Your task to perform on an android device: When is my next appointment? Image 0: 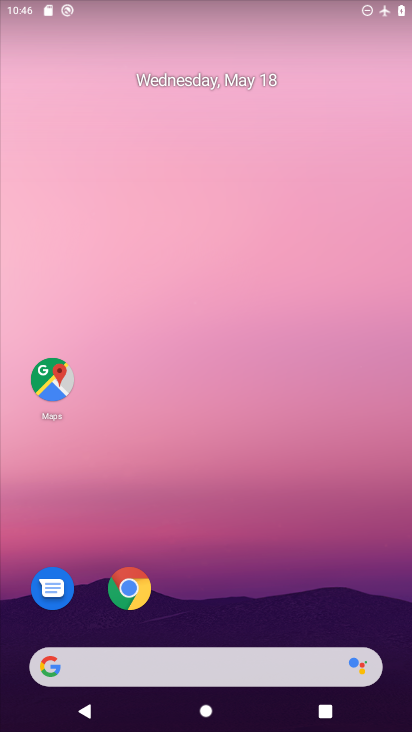
Step 0: drag from (237, 634) to (207, 7)
Your task to perform on an android device: When is my next appointment? Image 1: 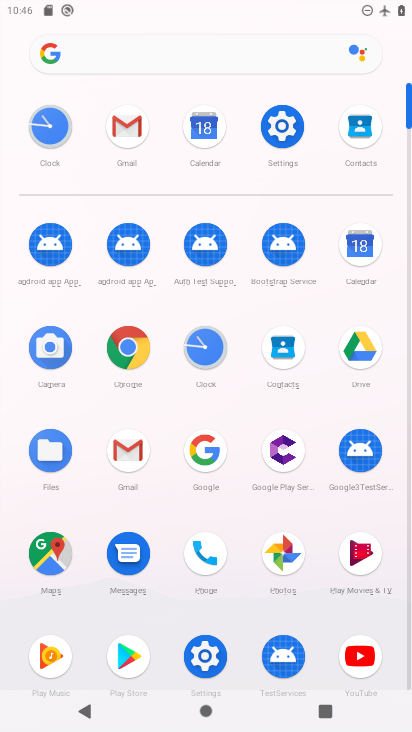
Step 1: click (203, 126)
Your task to perform on an android device: When is my next appointment? Image 2: 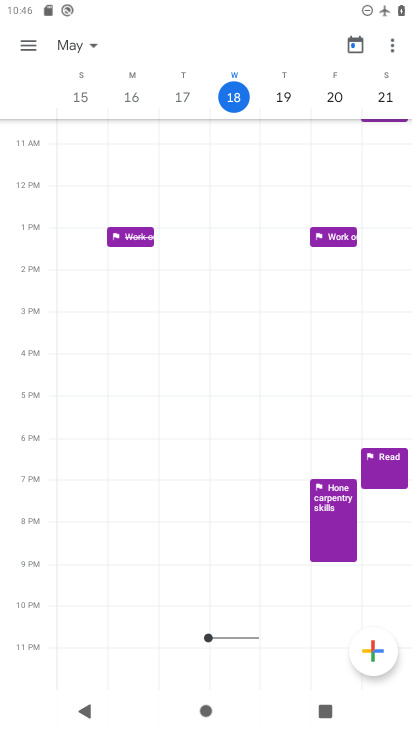
Step 2: click (24, 45)
Your task to perform on an android device: When is my next appointment? Image 3: 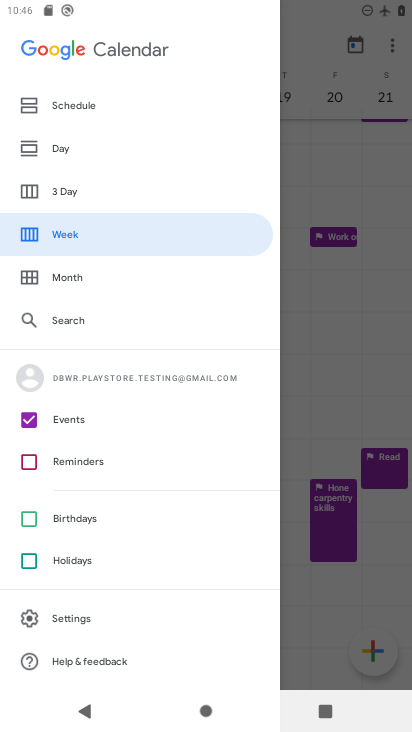
Step 3: click (56, 105)
Your task to perform on an android device: When is my next appointment? Image 4: 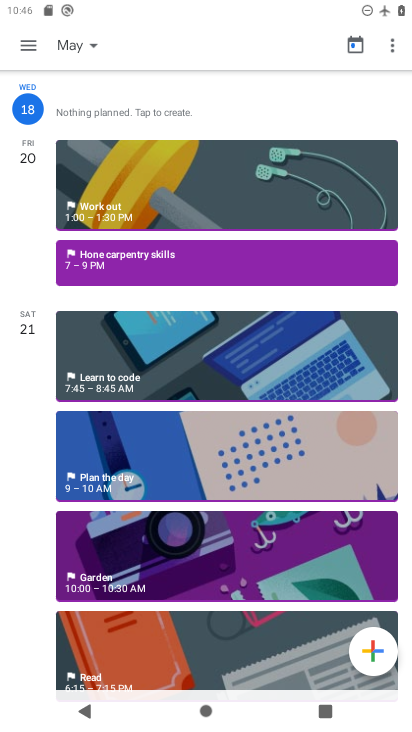
Step 4: click (157, 264)
Your task to perform on an android device: When is my next appointment? Image 5: 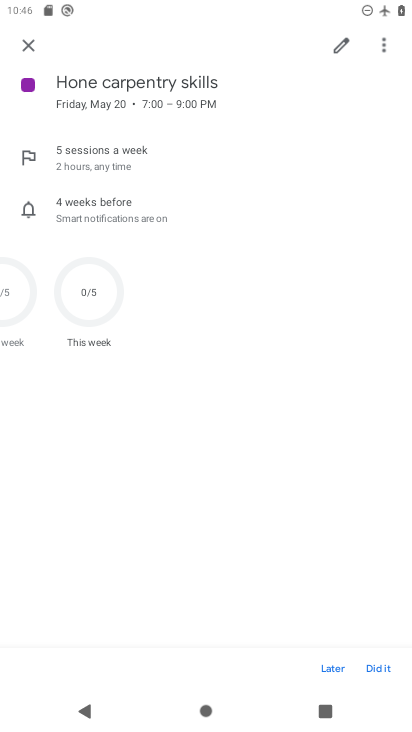
Step 5: task complete